Your task to perform on an android device: Open Wikipedia Image 0: 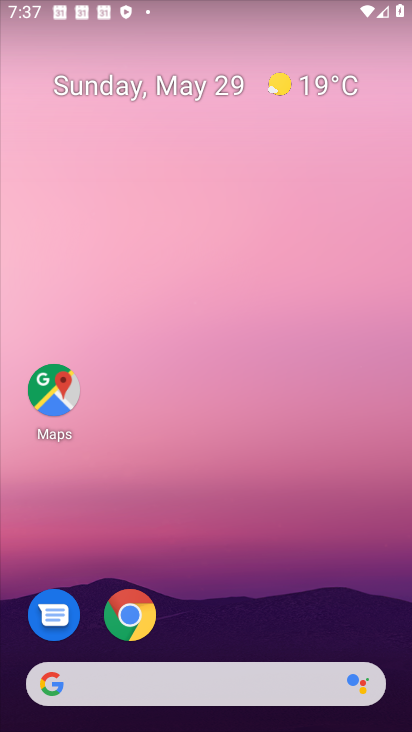
Step 0: click (128, 629)
Your task to perform on an android device: Open Wikipedia Image 1: 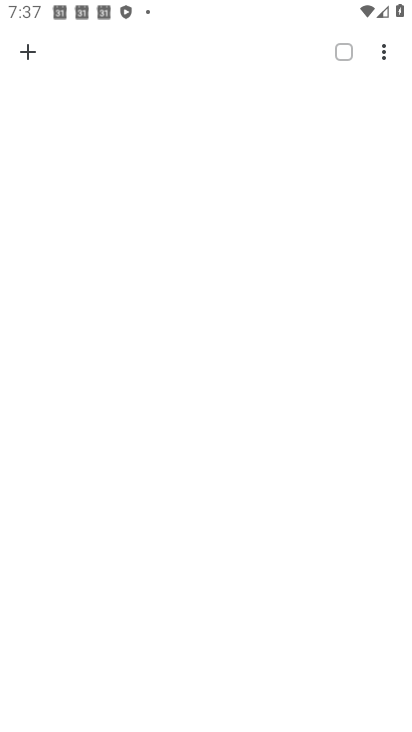
Step 1: click (22, 53)
Your task to perform on an android device: Open Wikipedia Image 2: 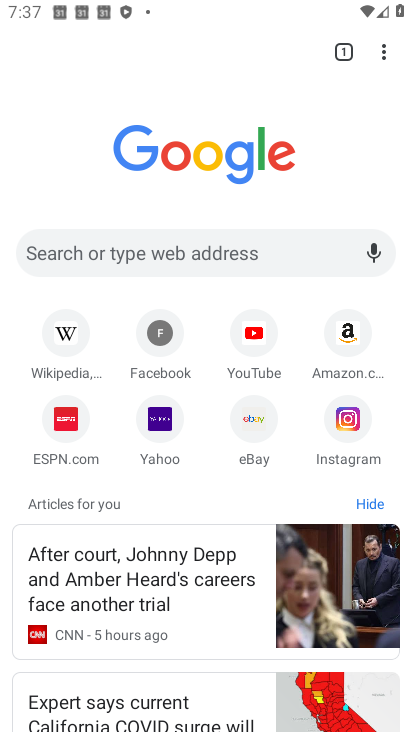
Step 2: click (47, 336)
Your task to perform on an android device: Open Wikipedia Image 3: 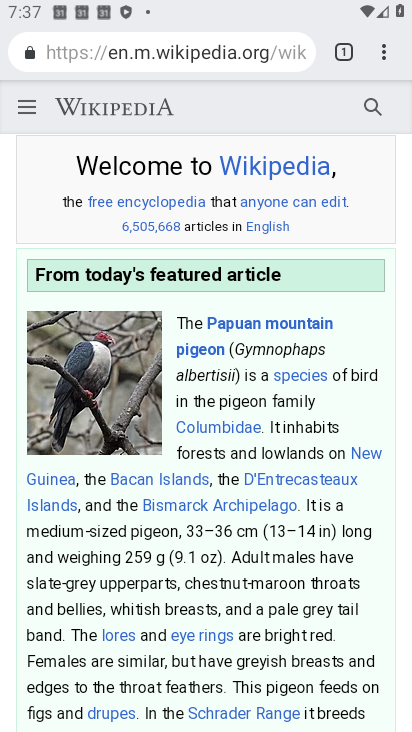
Step 3: drag from (385, 638) to (390, 383)
Your task to perform on an android device: Open Wikipedia Image 4: 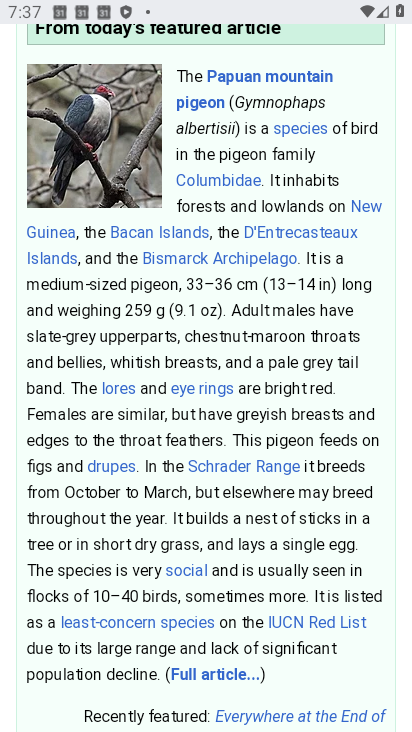
Step 4: drag from (377, 660) to (361, 327)
Your task to perform on an android device: Open Wikipedia Image 5: 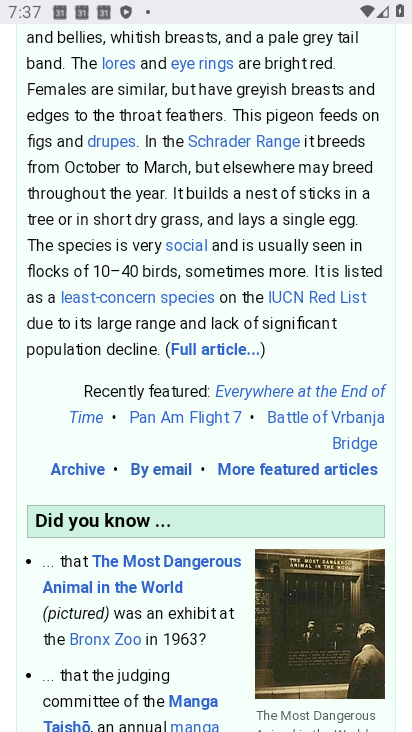
Step 5: drag from (348, 661) to (344, 322)
Your task to perform on an android device: Open Wikipedia Image 6: 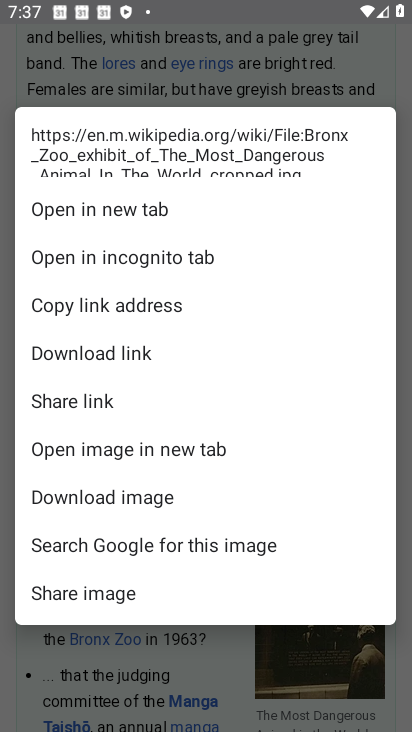
Step 6: click (300, 693)
Your task to perform on an android device: Open Wikipedia Image 7: 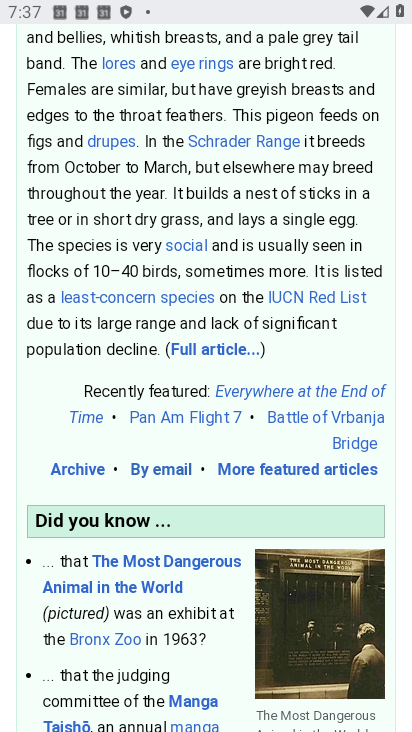
Step 7: task complete